Your task to perform on an android device: install app "Google Docs" Image 0: 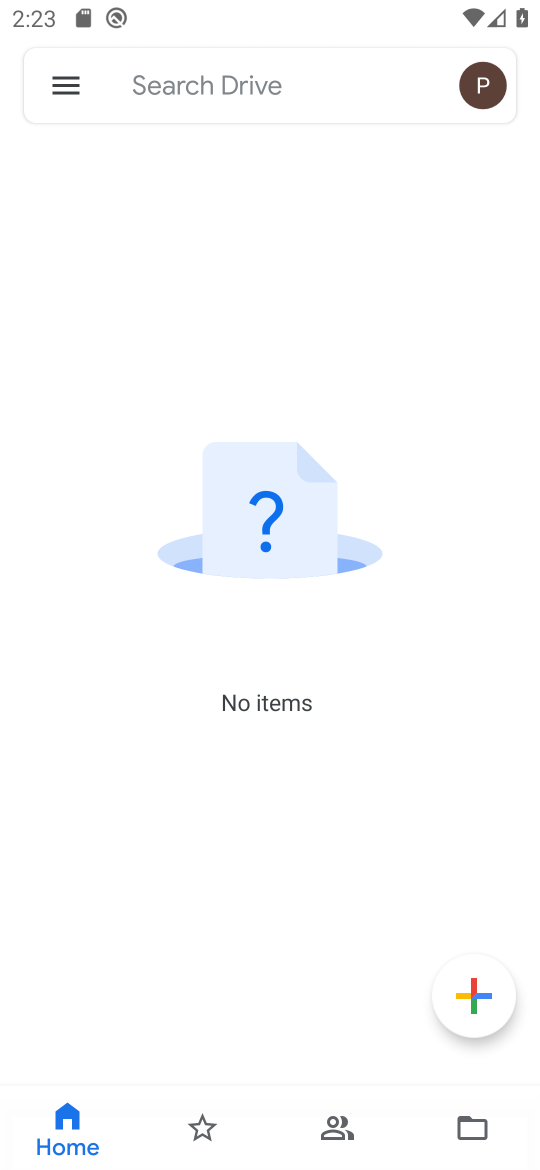
Step 0: press home button
Your task to perform on an android device: install app "Google Docs" Image 1: 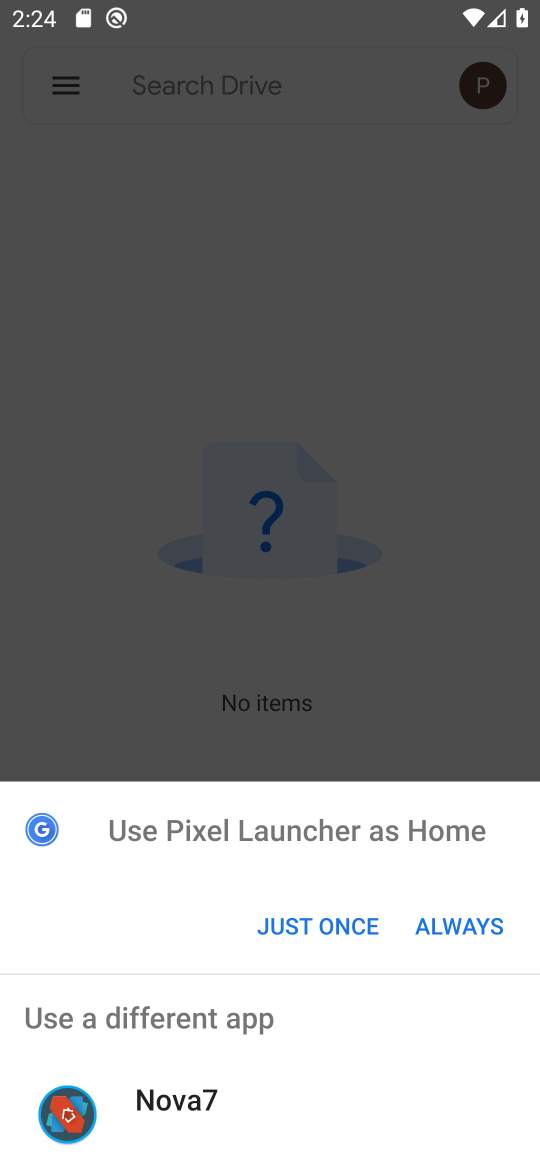
Step 1: click (310, 914)
Your task to perform on an android device: install app "Google Docs" Image 2: 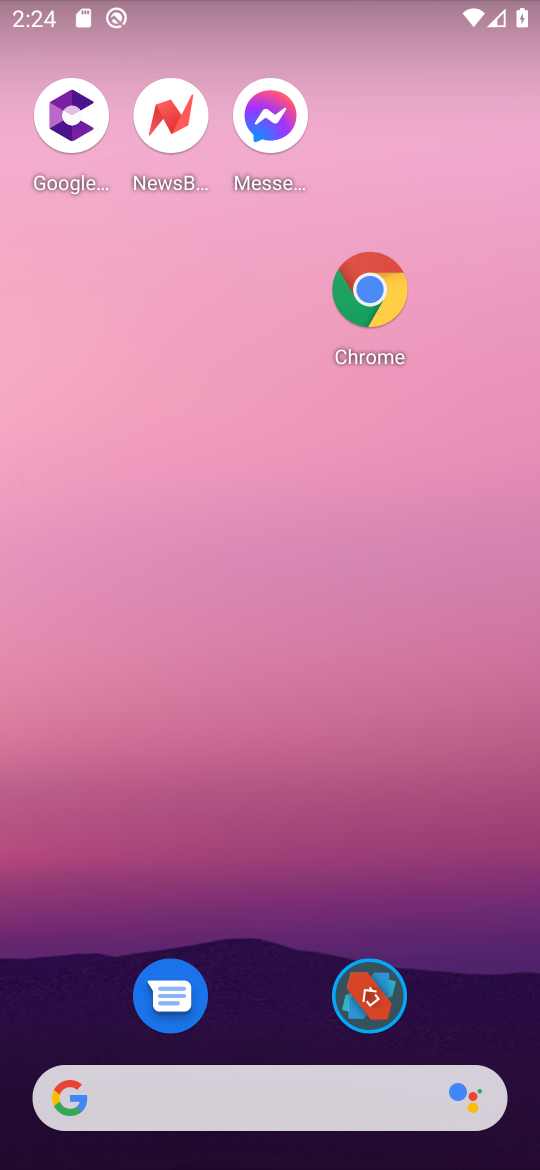
Step 2: drag from (324, 1002) to (496, 59)
Your task to perform on an android device: install app "Google Docs" Image 3: 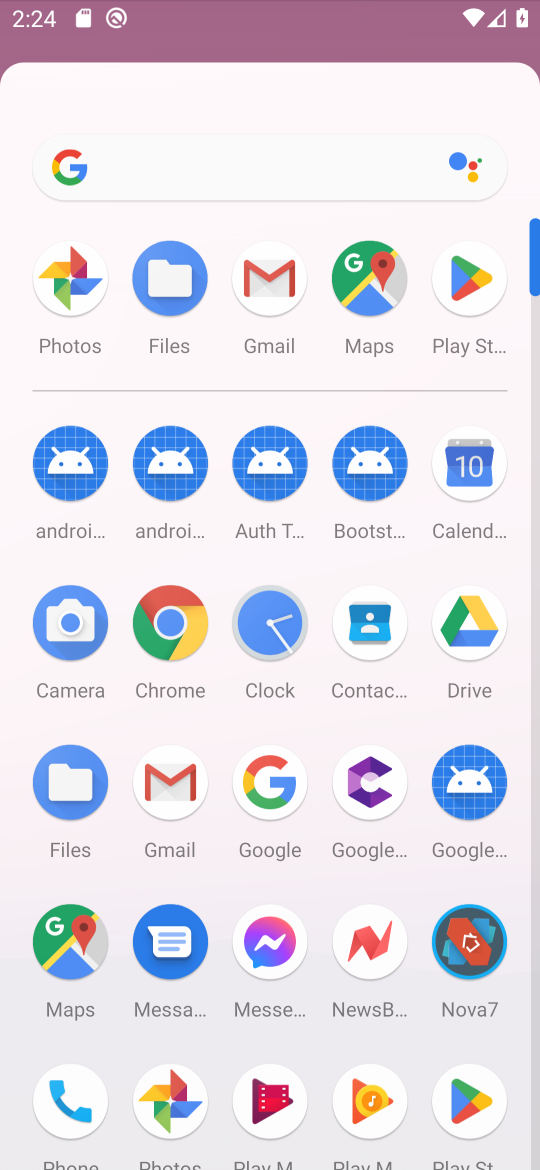
Step 3: click (470, 208)
Your task to perform on an android device: install app "Google Docs" Image 4: 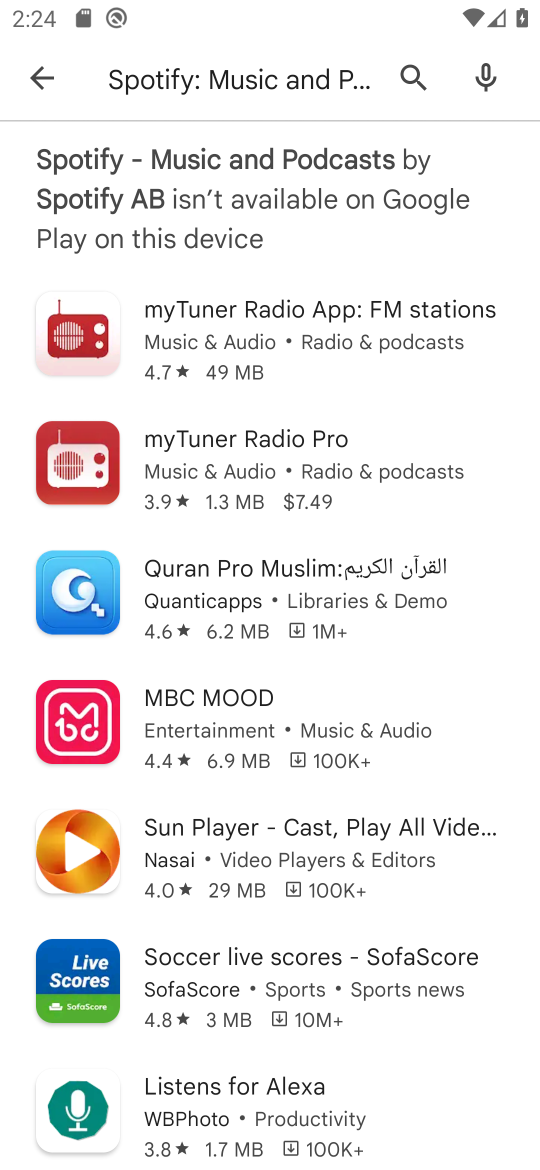
Step 4: press back button
Your task to perform on an android device: install app "Google Docs" Image 5: 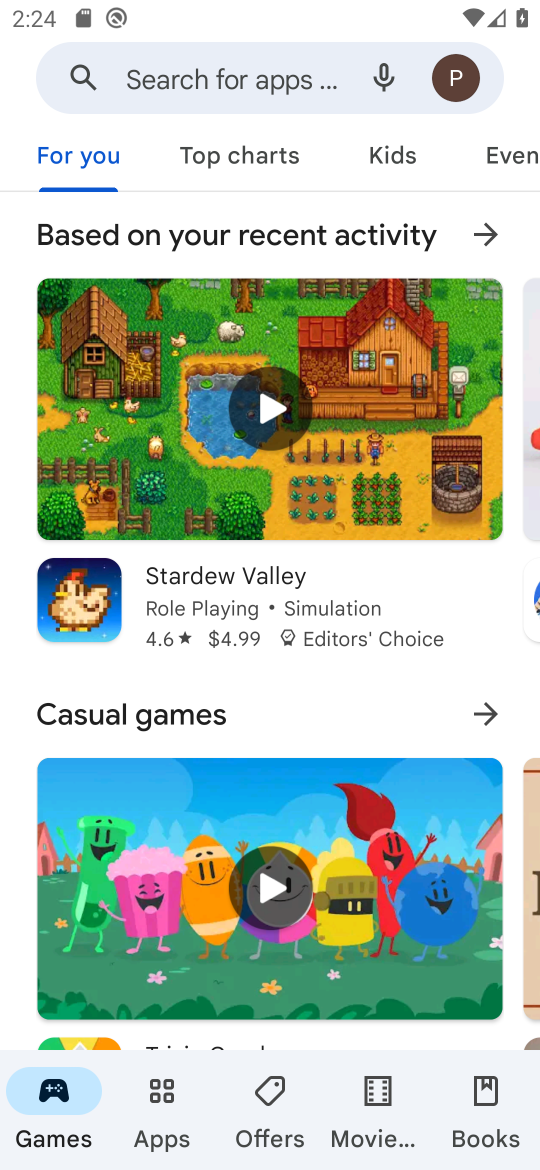
Step 5: type "Google Docs"
Your task to perform on an android device: install app "Google Docs" Image 6: 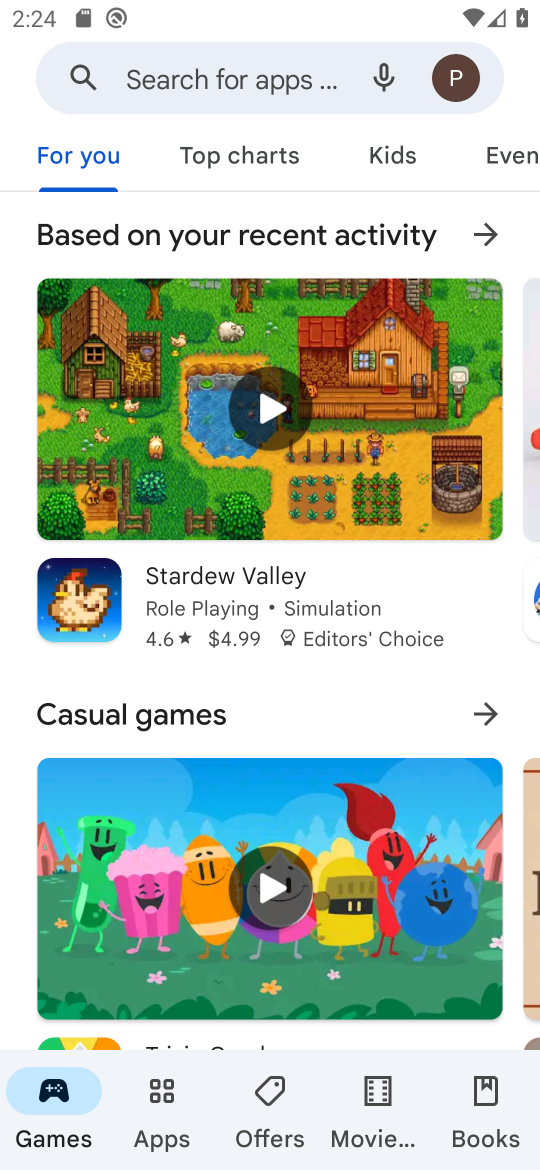
Step 6: click (204, 47)
Your task to perform on an android device: install app "Google Docs" Image 7: 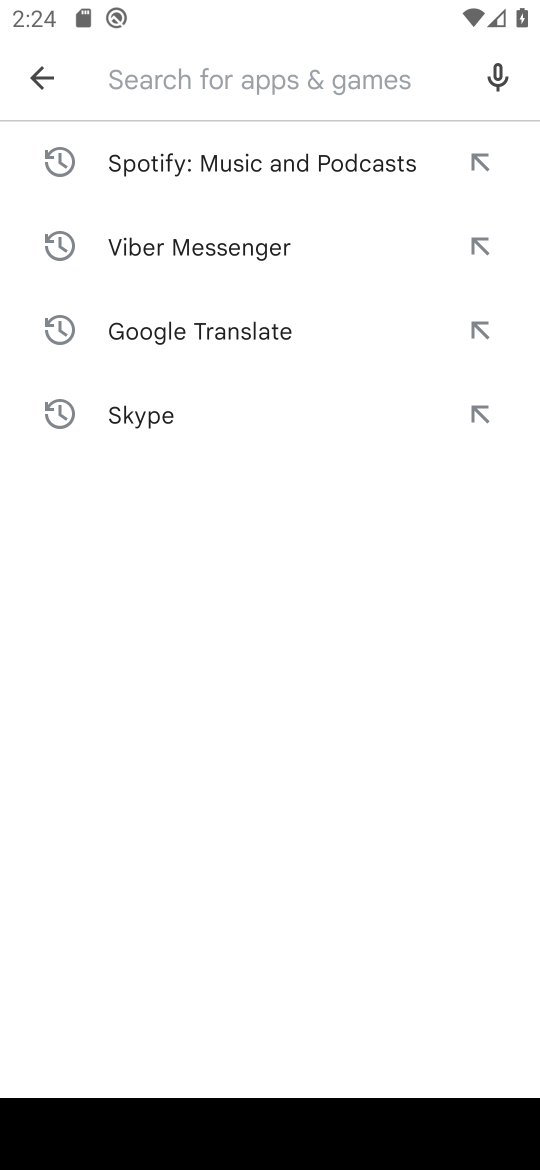
Step 7: type "Google Docs"
Your task to perform on an android device: install app "Google Docs" Image 8: 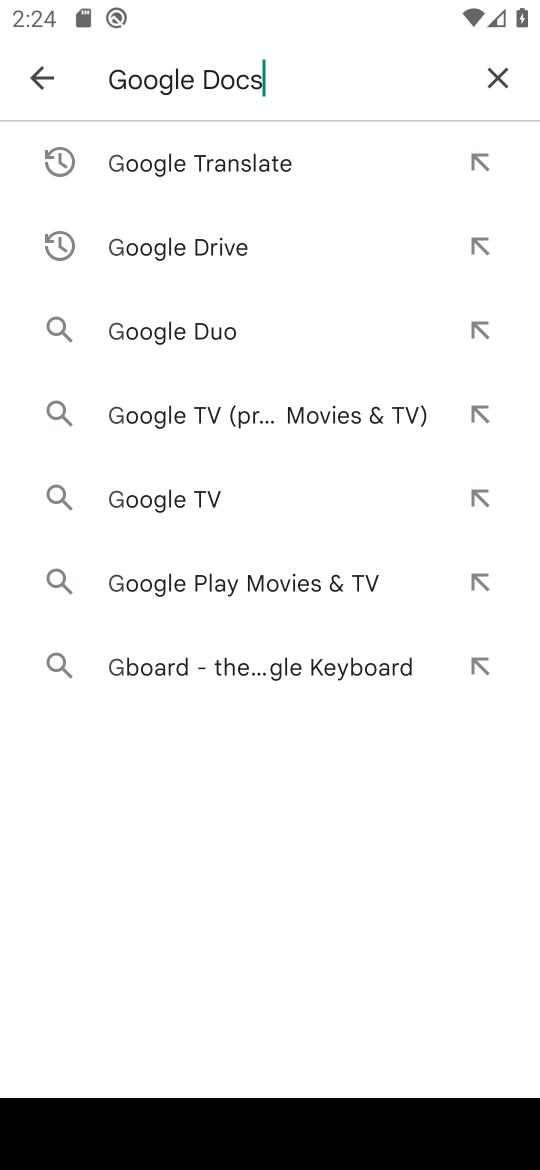
Step 8: press enter
Your task to perform on an android device: install app "Google Docs" Image 9: 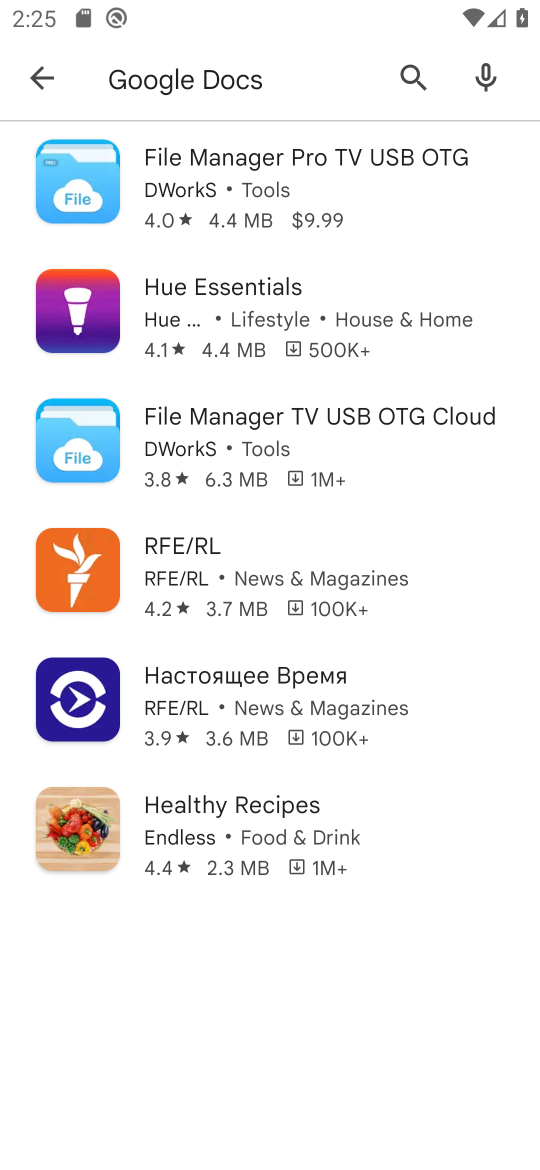
Step 9: task complete